Your task to perform on an android device: Open the Play Movies app and select the watchlist tab. Image 0: 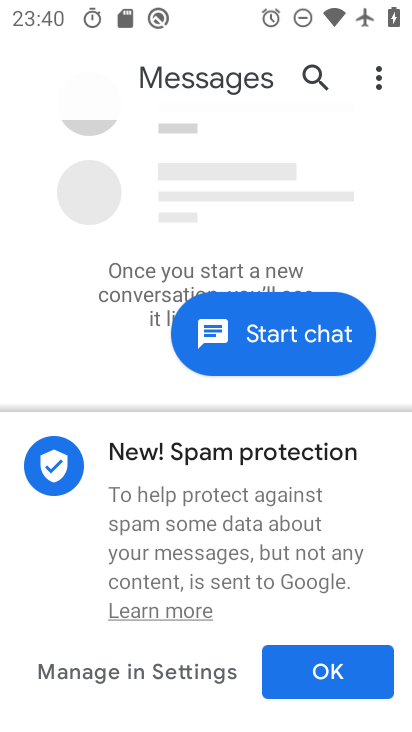
Step 0: press home button
Your task to perform on an android device: Open the Play Movies app and select the watchlist tab. Image 1: 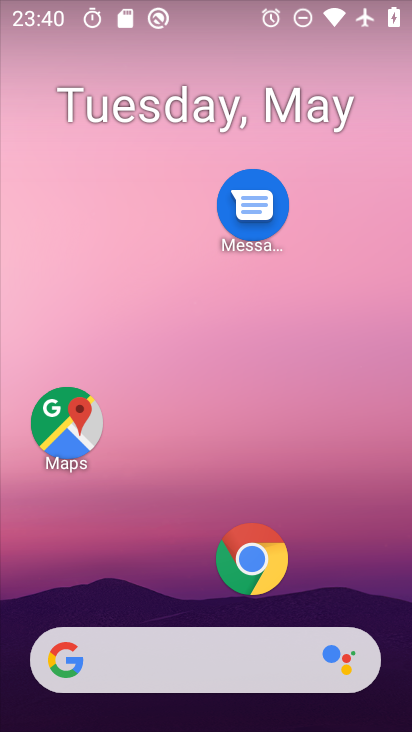
Step 1: drag from (186, 418) to (203, 168)
Your task to perform on an android device: Open the Play Movies app and select the watchlist tab. Image 2: 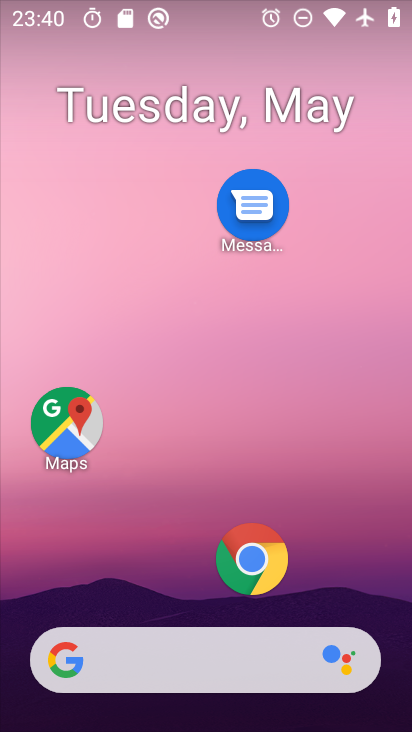
Step 2: drag from (177, 601) to (174, 218)
Your task to perform on an android device: Open the Play Movies app and select the watchlist tab. Image 3: 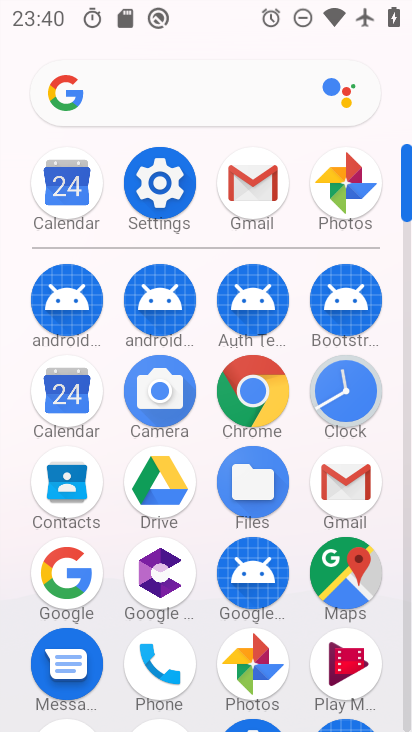
Step 3: drag from (226, 633) to (250, 399)
Your task to perform on an android device: Open the Play Movies app and select the watchlist tab. Image 4: 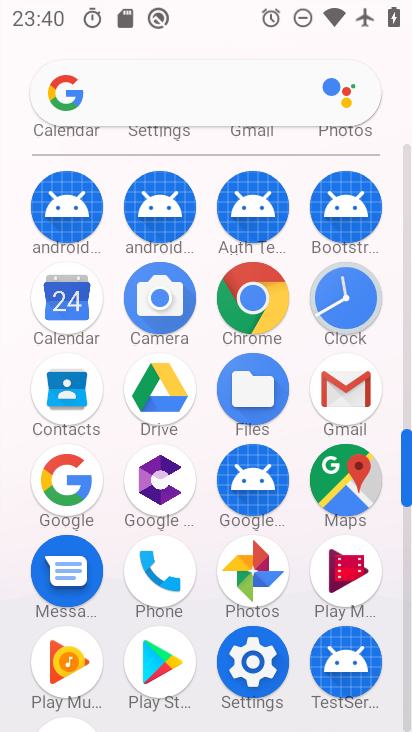
Step 4: click (333, 543)
Your task to perform on an android device: Open the Play Movies app and select the watchlist tab. Image 5: 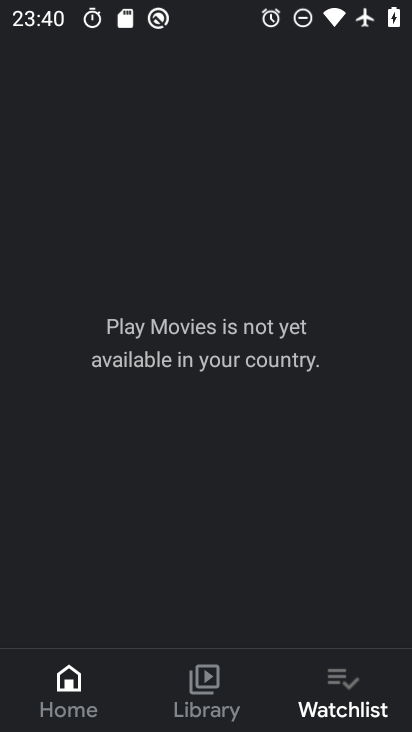
Step 5: click (350, 687)
Your task to perform on an android device: Open the Play Movies app and select the watchlist tab. Image 6: 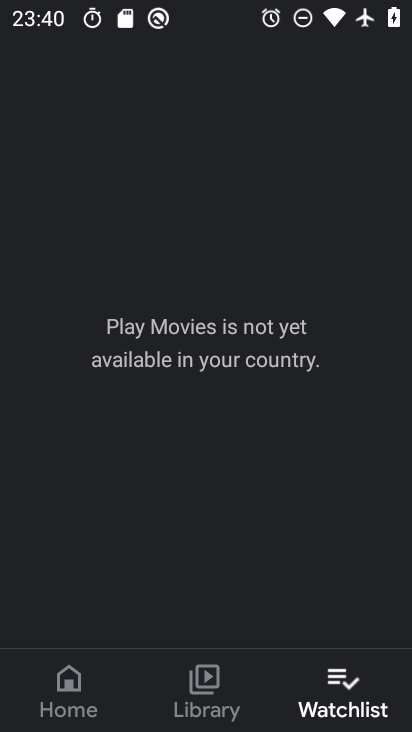
Step 6: task complete